Your task to perform on an android device: change the clock style Image 0: 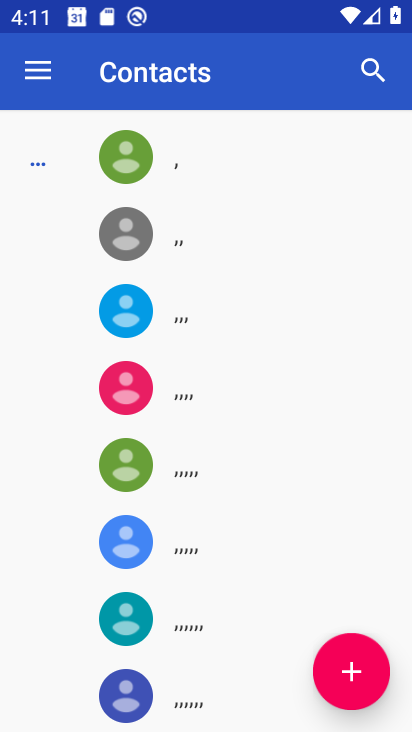
Step 0: press home button
Your task to perform on an android device: change the clock style Image 1: 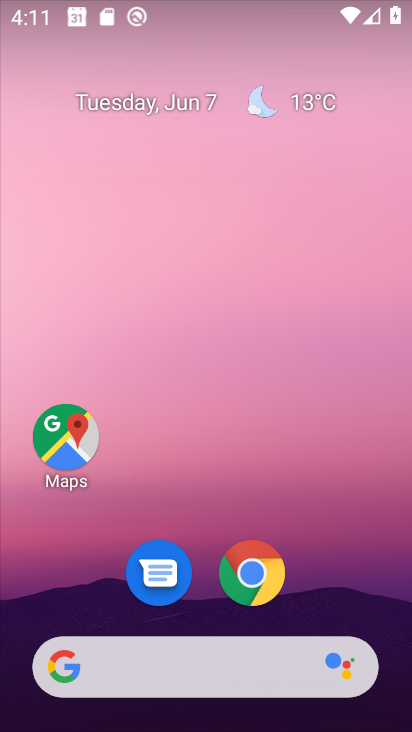
Step 1: drag from (343, 599) to (335, 72)
Your task to perform on an android device: change the clock style Image 2: 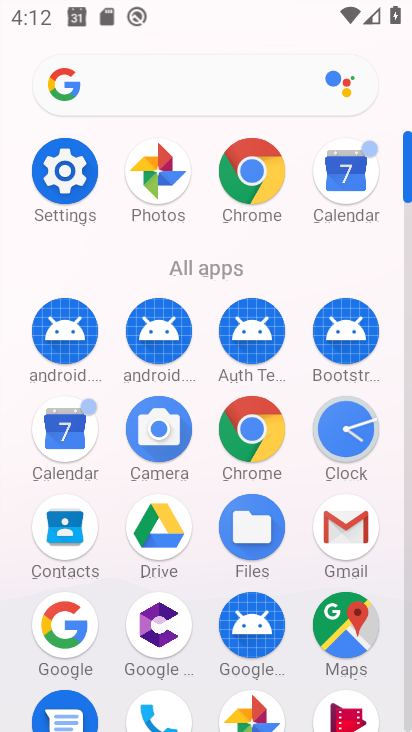
Step 2: click (361, 448)
Your task to perform on an android device: change the clock style Image 3: 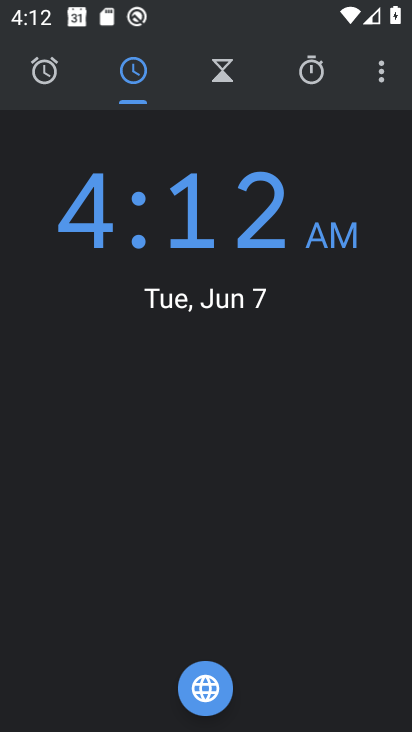
Step 3: click (366, 75)
Your task to perform on an android device: change the clock style Image 4: 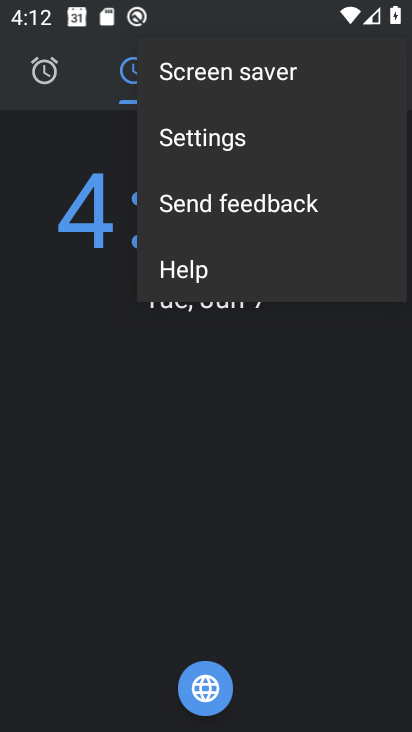
Step 4: click (227, 145)
Your task to perform on an android device: change the clock style Image 5: 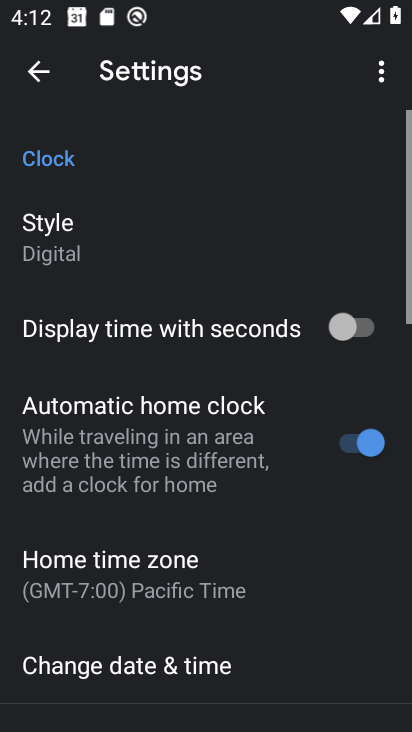
Step 5: click (122, 238)
Your task to perform on an android device: change the clock style Image 6: 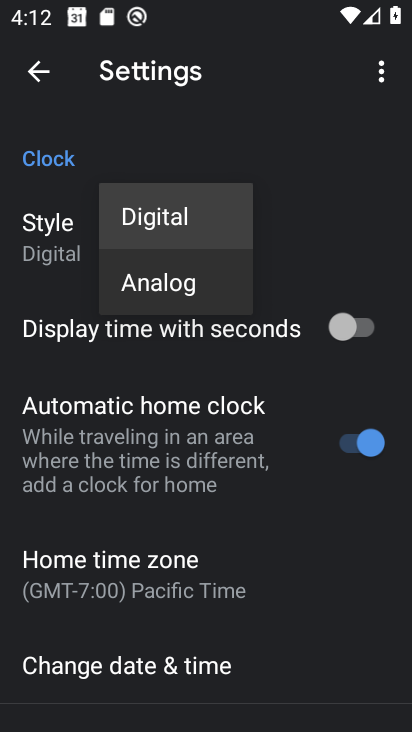
Step 6: click (189, 278)
Your task to perform on an android device: change the clock style Image 7: 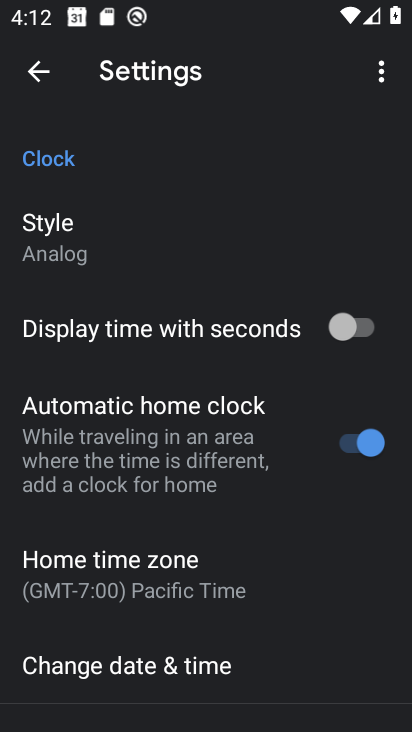
Step 7: task complete